Your task to perform on an android device: Open display settings Image 0: 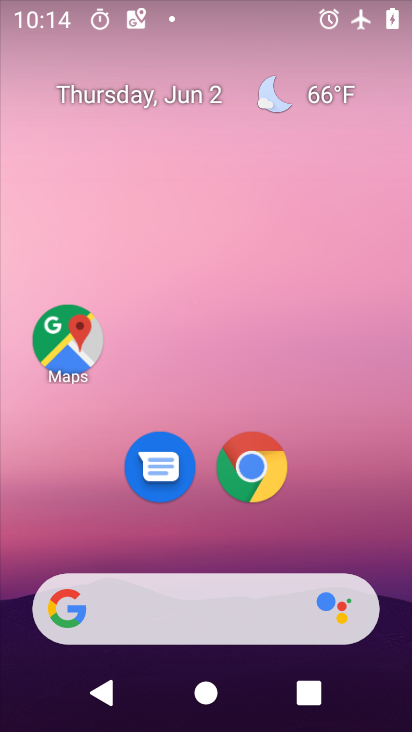
Step 0: drag from (3, 668) to (182, 182)
Your task to perform on an android device: Open display settings Image 1: 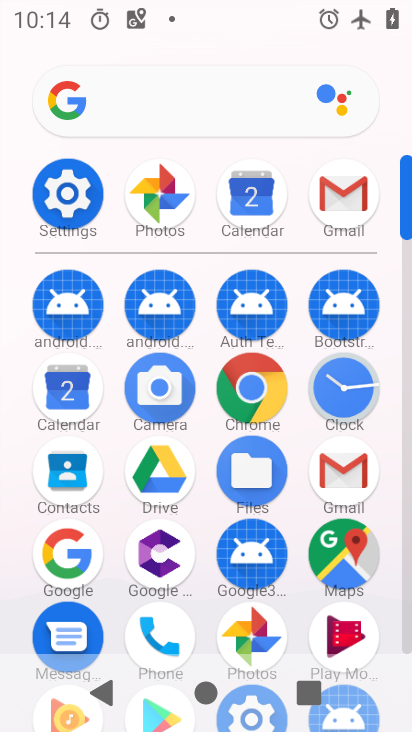
Step 1: click (71, 189)
Your task to perform on an android device: Open display settings Image 2: 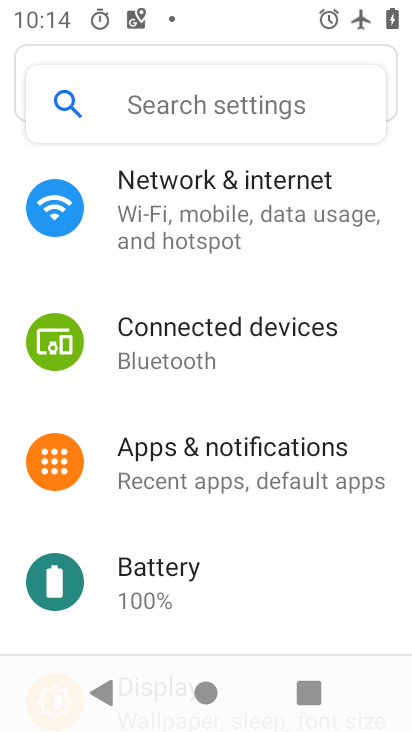
Step 2: drag from (51, 574) to (395, 148)
Your task to perform on an android device: Open display settings Image 3: 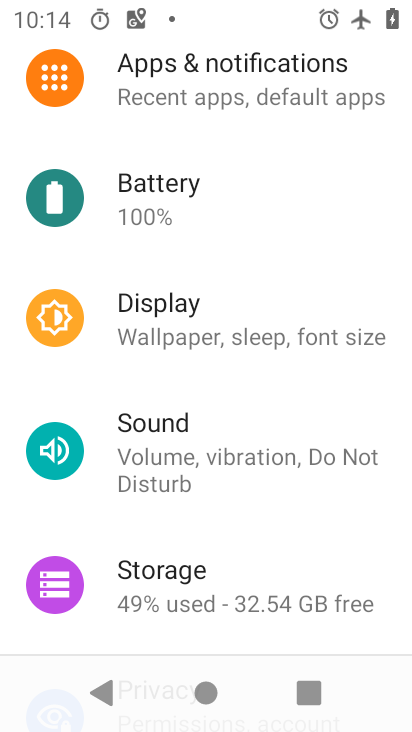
Step 3: drag from (33, 625) to (329, 297)
Your task to perform on an android device: Open display settings Image 4: 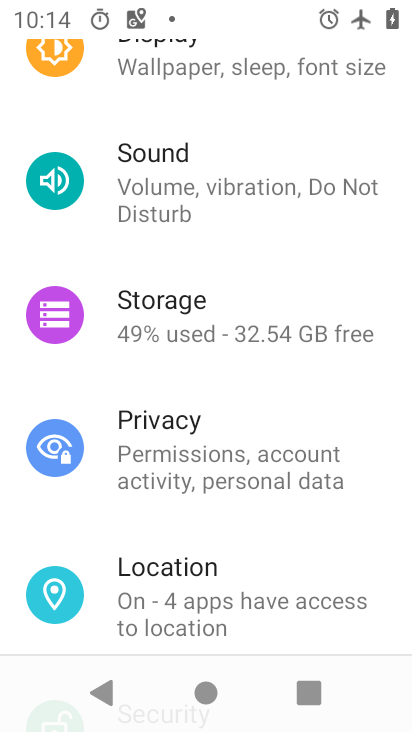
Step 4: click (226, 65)
Your task to perform on an android device: Open display settings Image 5: 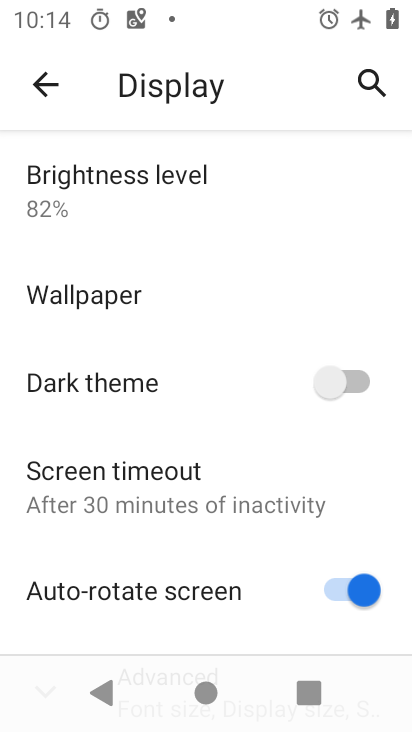
Step 5: task complete